Your task to perform on an android device: add a contact Image 0: 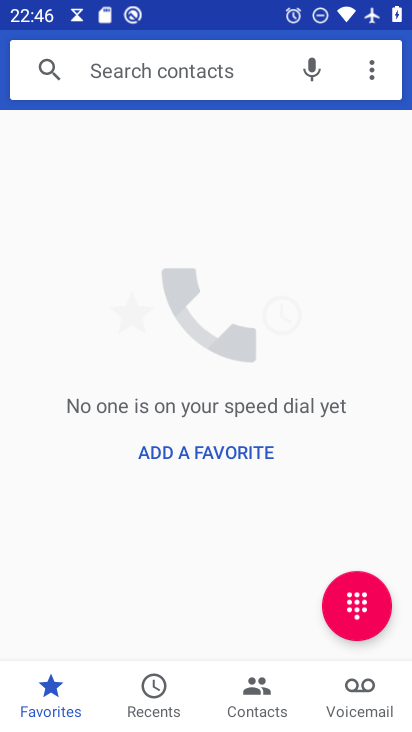
Step 0: press home button
Your task to perform on an android device: add a contact Image 1: 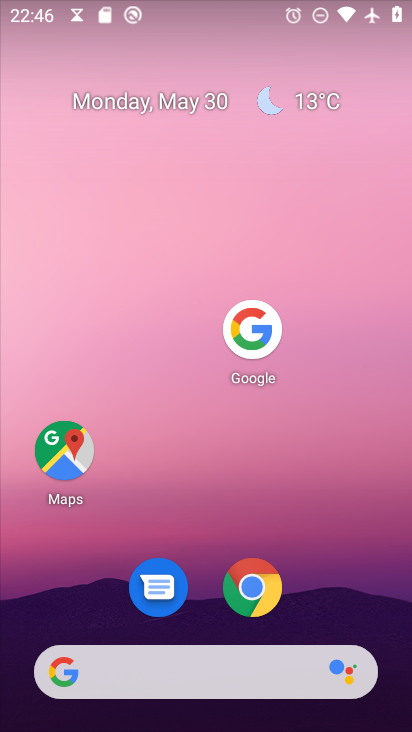
Step 1: drag from (196, 682) to (244, 150)
Your task to perform on an android device: add a contact Image 2: 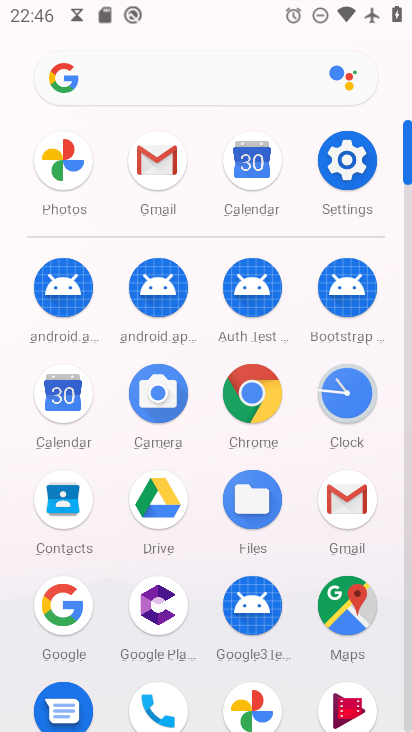
Step 2: click (63, 503)
Your task to perform on an android device: add a contact Image 3: 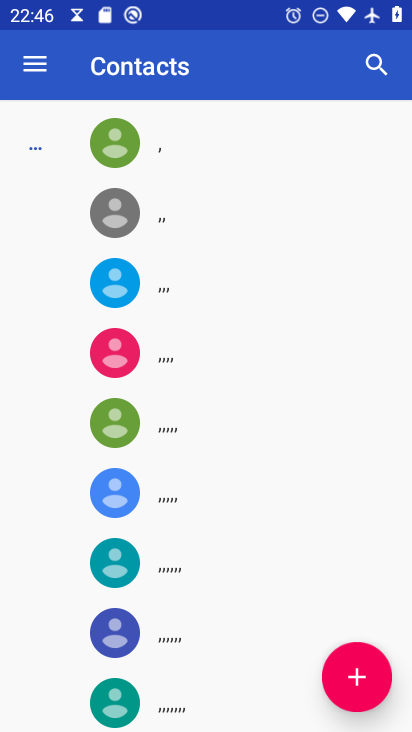
Step 3: click (361, 660)
Your task to perform on an android device: add a contact Image 4: 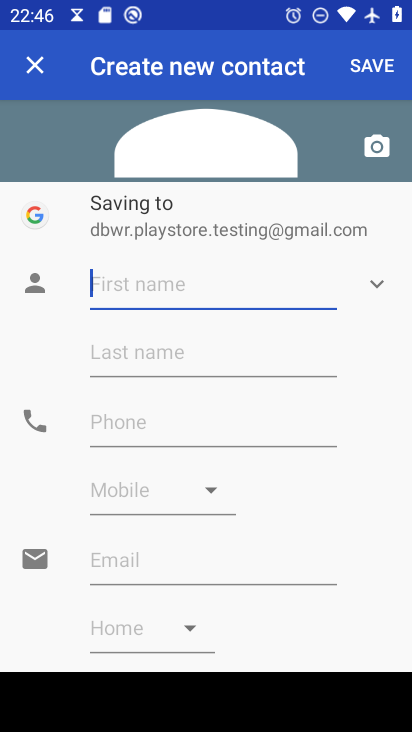
Step 4: type "fgttyj"
Your task to perform on an android device: add a contact Image 5: 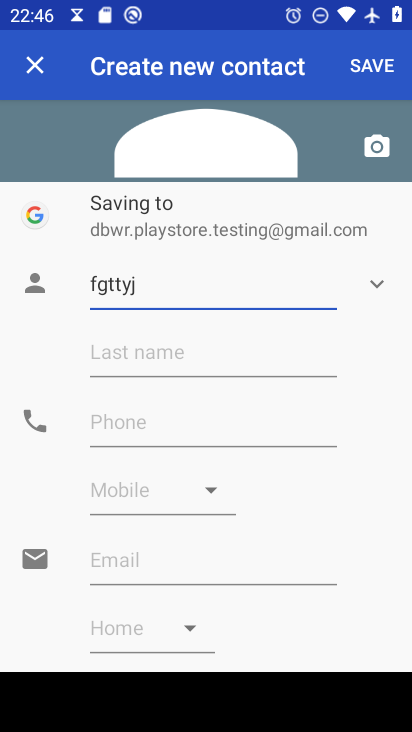
Step 5: click (107, 424)
Your task to perform on an android device: add a contact Image 6: 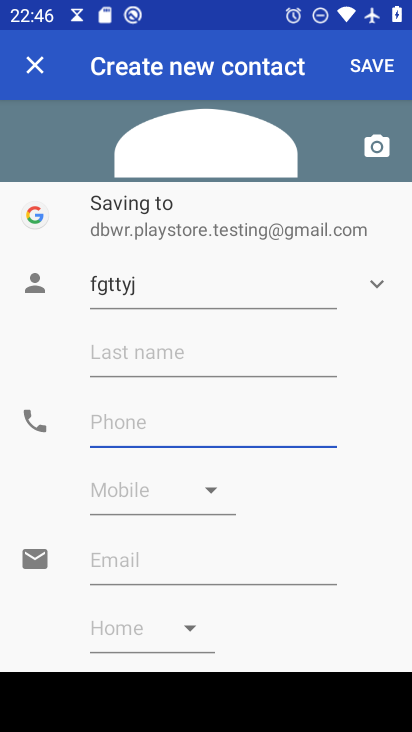
Step 6: type "5667544"
Your task to perform on an android device: add a contact Image 7: 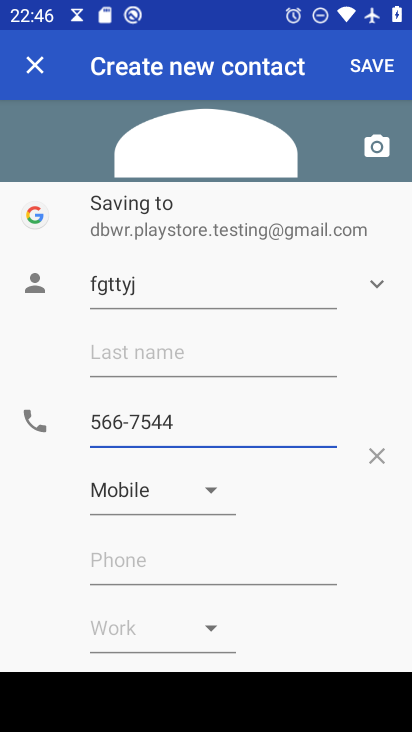
Step 7: click (379, 61)
Your task to perform on an android device: add a contact Image 8: 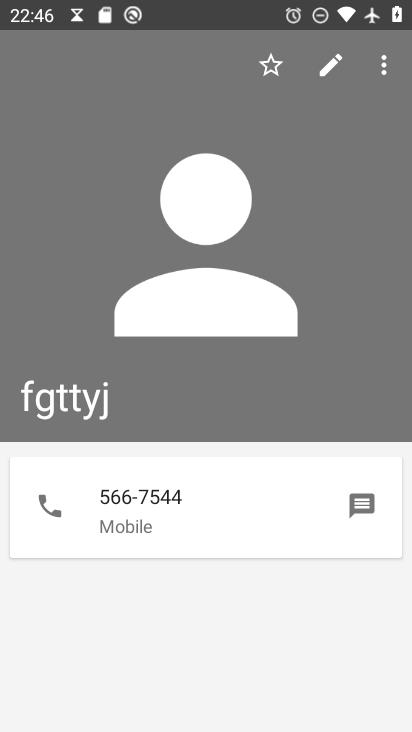
Step 8: task complete